Your task to perform on an android device: Go to Yahoo.com Image 0: 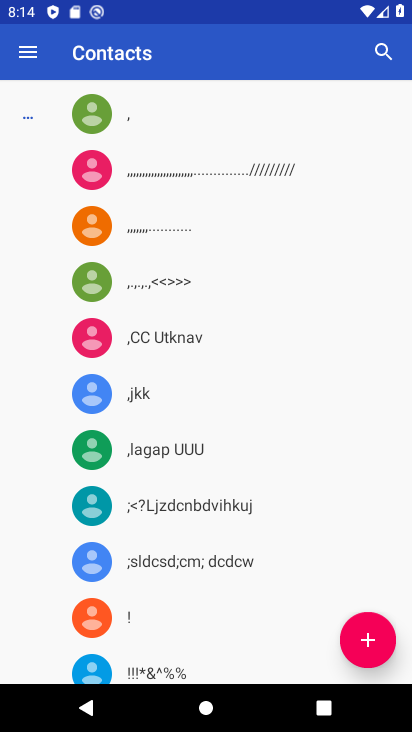
Step 0: press home button
Your task to perform on an android device: Go to Yahoo.com Image 1: 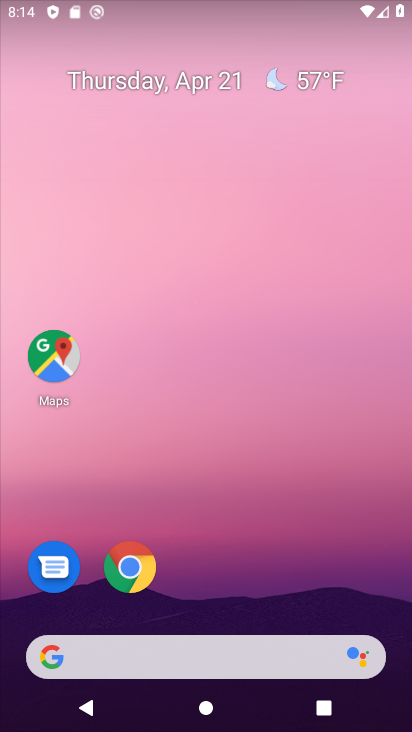
Step 1: click (155, 648)
Your task to perform on an android device: Go to Yahoo.com Image 2: 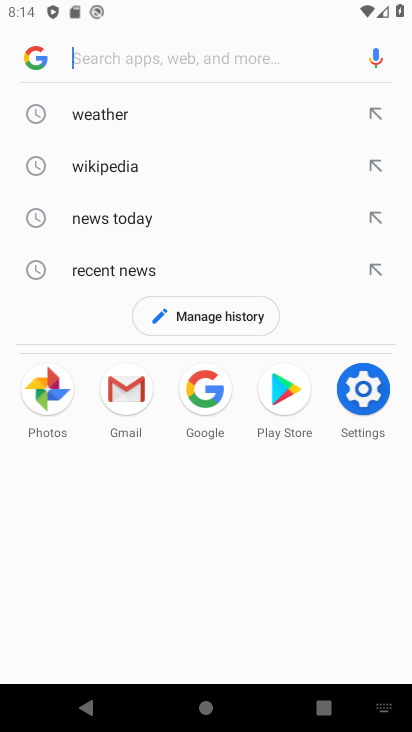
Step 2: type "Yahoo.com"
Your task to perform on an android device: Go to Yahoo.com Image 3: 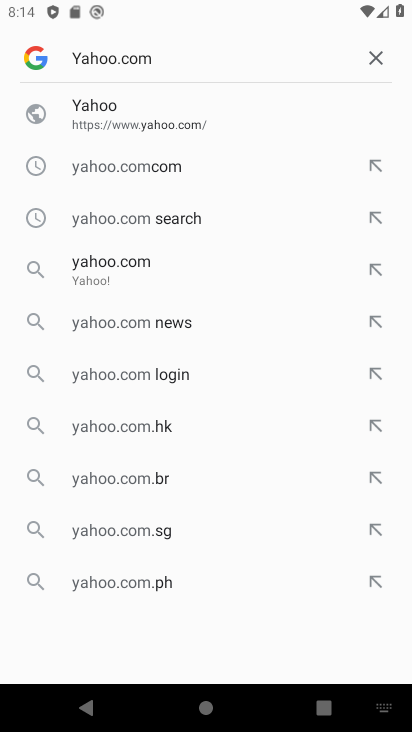
Step 3: click (119, 103)
Your task to perform on an android device: Go to Yahoo.com Image 4: 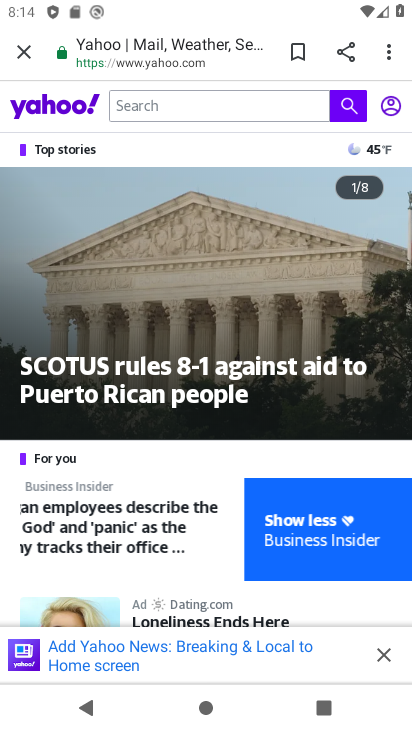
Step 4: task complete